Your task to perform on an android device: turn notification dots off Image 0: 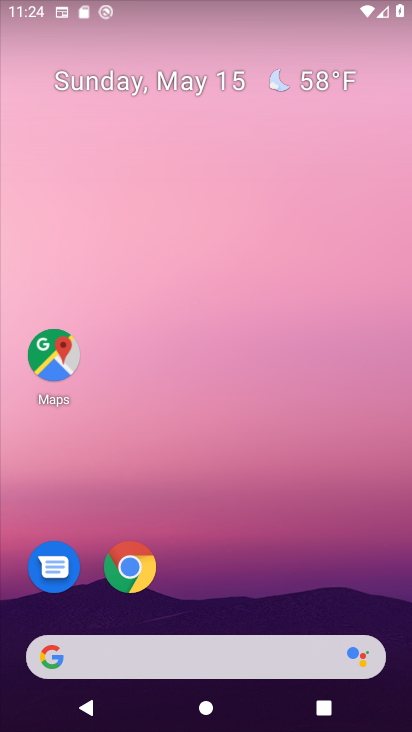
Step 0: drag from (189, 606) to (269, 25)
Your task to perform on an android device: turn notification dots off Image 1: 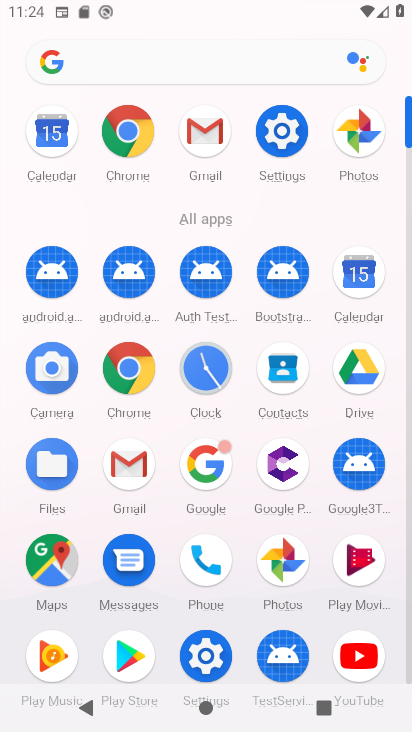
Step 1: click (293, 150)
Your task to perform on an android device: turn notification dots off Image 2: 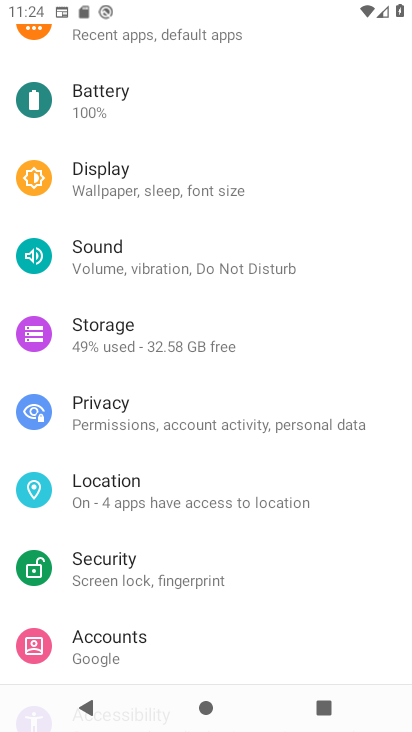
Step 2: drag from (293, 150) to (156, 630)
Your task to perform on an android device: turn notification dots off Image 3: 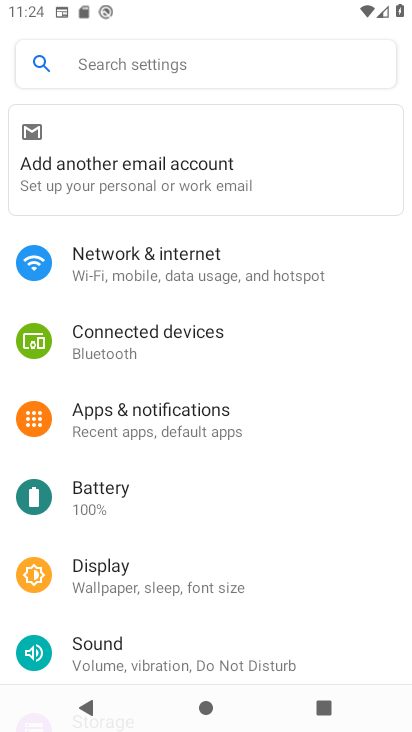
Step 3: click (211, 429)
Your task to perform on an android device: turn notification dots off Image 4: 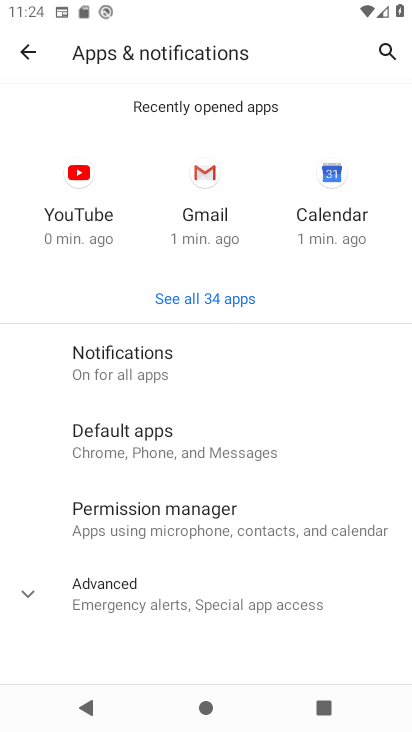
Step 4: click (210, 370)
Your task to perform on an android device: turn notification dots off Image 5: 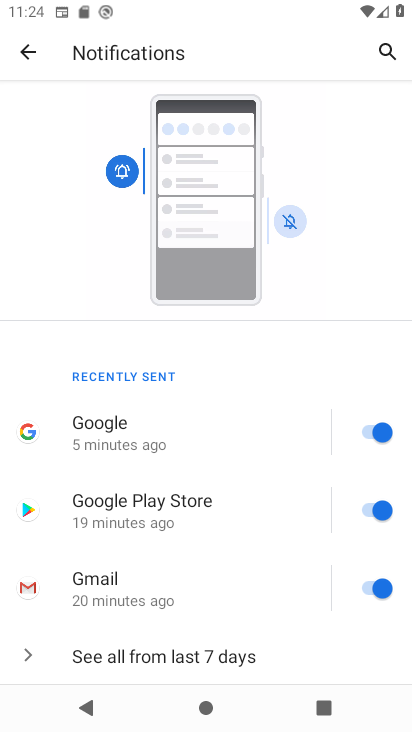
Step 5: drag from (243, 532) to (288, 228)
Your task to perform on an android device: turn notification dots off Image 6: 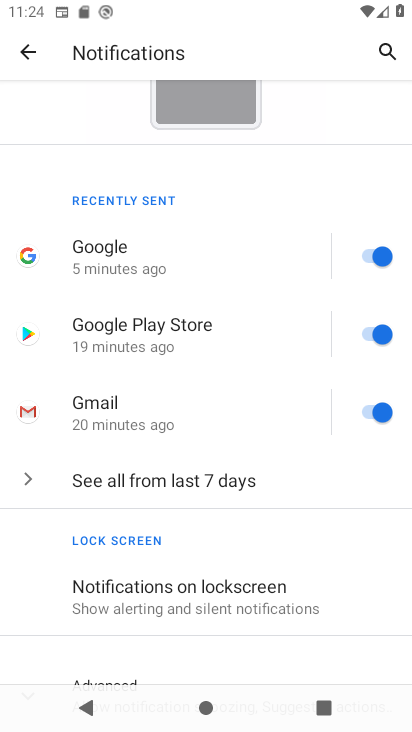
Step 6: drag from (167, 566) to (243, 203)
Your task to perform on an android device: turn notification dots off Image 7: 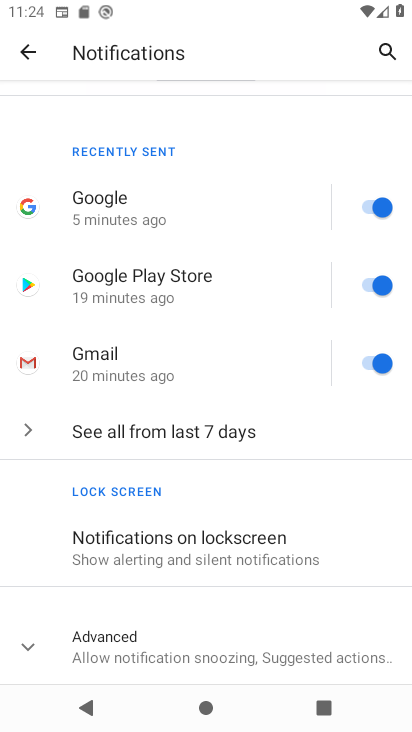
Step 7: click (294, 542)
Your task to perform on an android device: turn notification dots off Image 8: 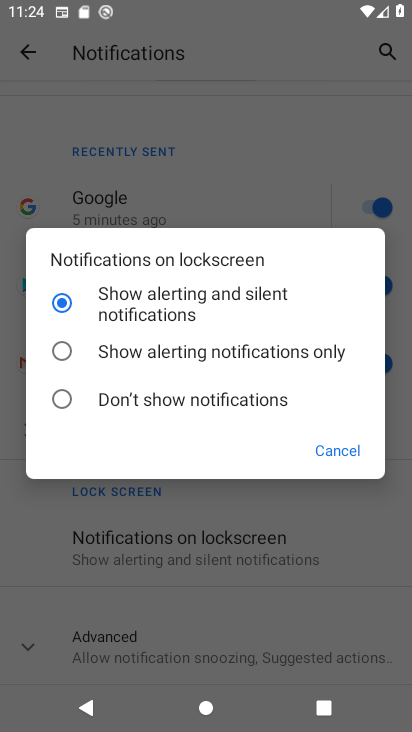
Step 8: click (332, 450)
Your task to perform on an android device: turn notification dots off Image 9: 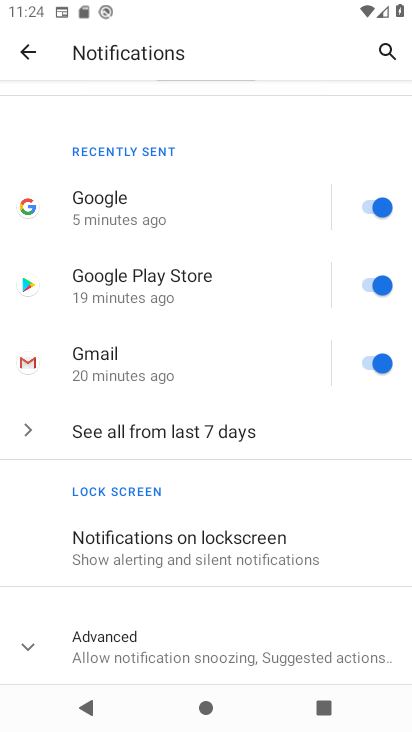
Step 9: drag from (207, 645) to (272, 336)
Your task to perform on an android device: turn notification dots off Image 10: 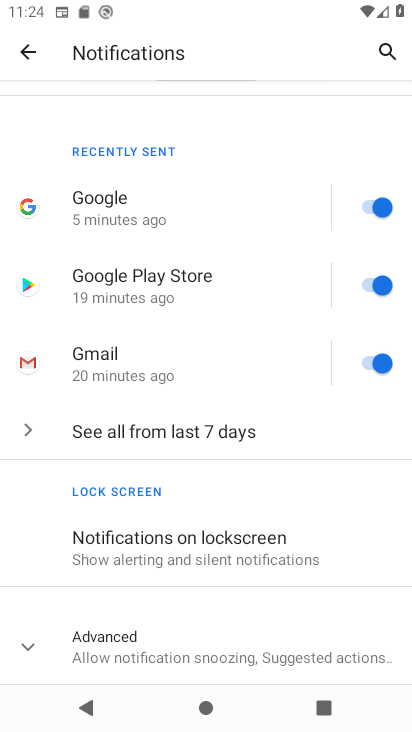
Step 10: click (194, 615)
Your task to perform on an android device: turn notification dots off Image 11: 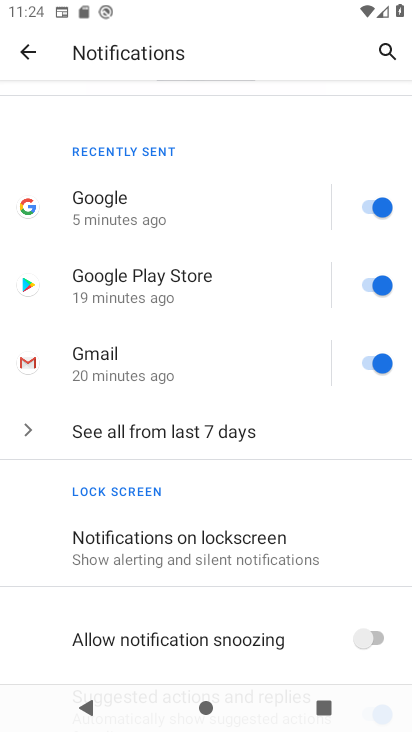
Step 11: drag from (194, 615) to (213, 256)
Your task to perform on an android device: turn notification dots off Image 12: 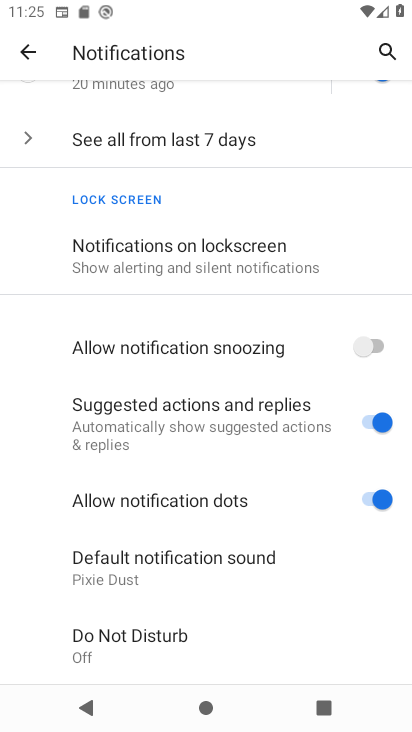
Step 12: click (367, 677)
Your task to perform on an android device: turn notification dots off Image 13: 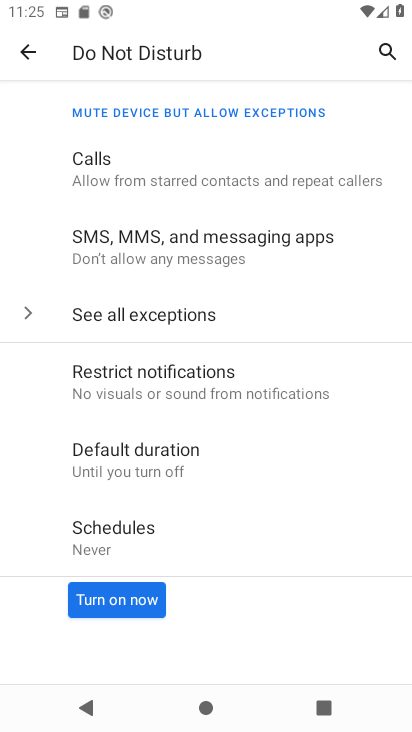
Step 13: task complete